Your task to perform on an android device: create a new album in the google photos Image 0: 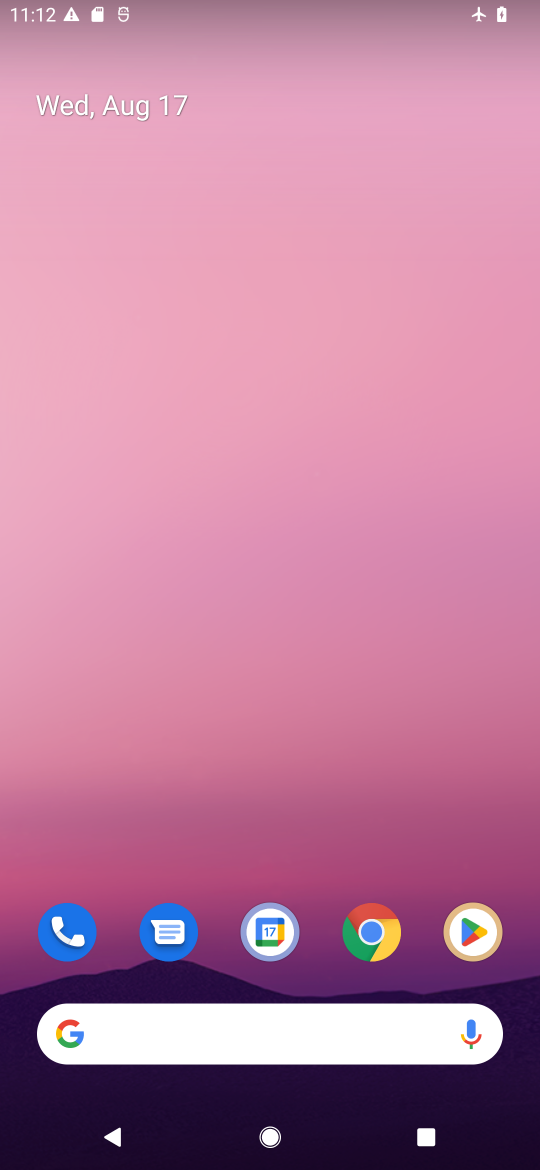
Step 0: drag from (304, 790) to (328, 213)
Your task to perform on an android device: create a new album in the google photos Image 1: 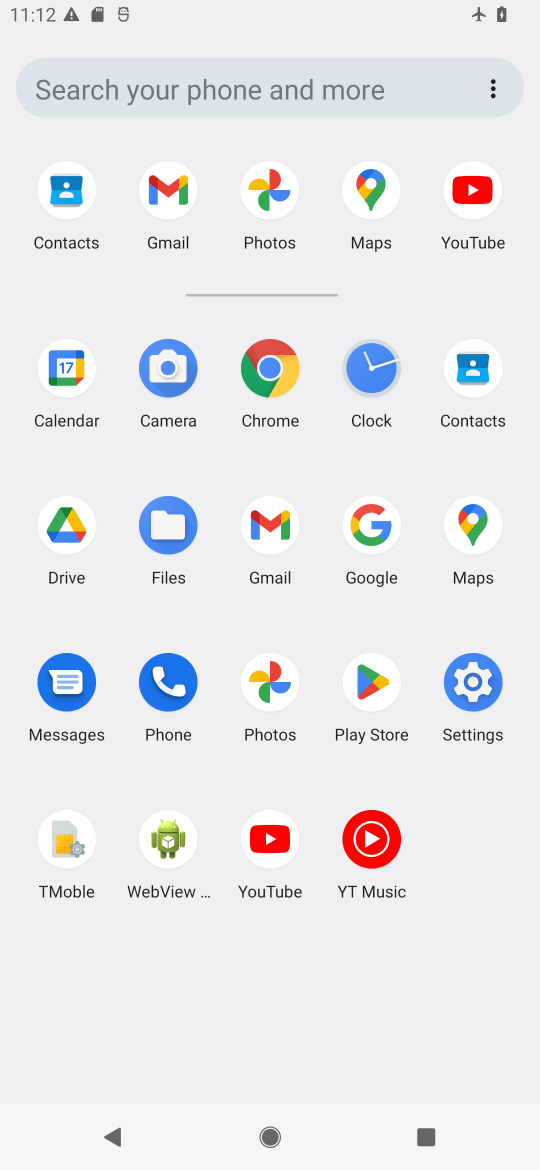
Step 1: click (289, 692)
Your task to perform on an android device: create a new album in the google photos Image 2: 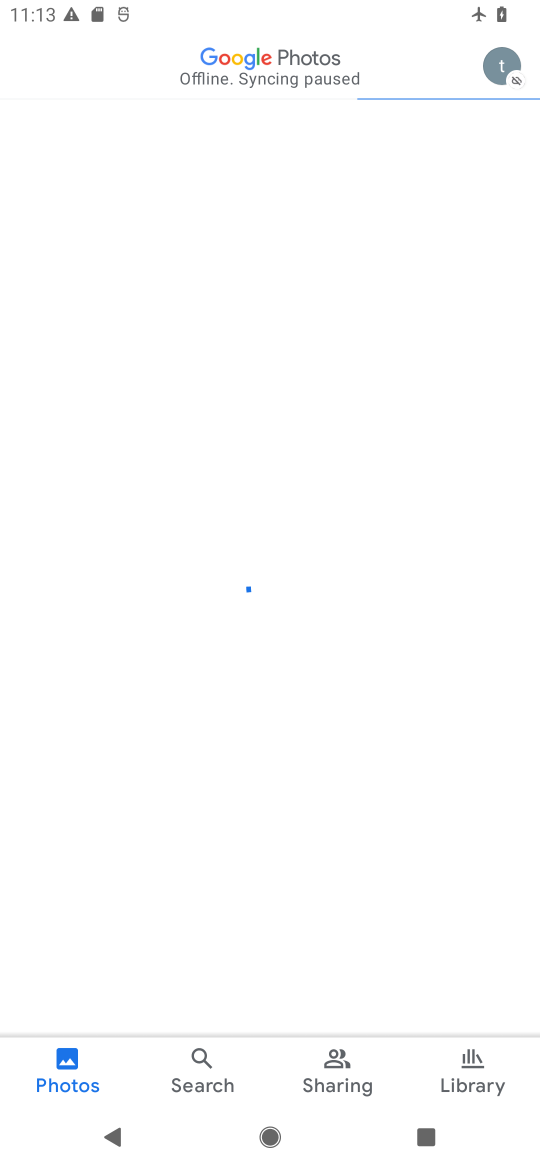
Step 2: task complete